Your task to perform on an android device: toggle sleep mode Image 0: 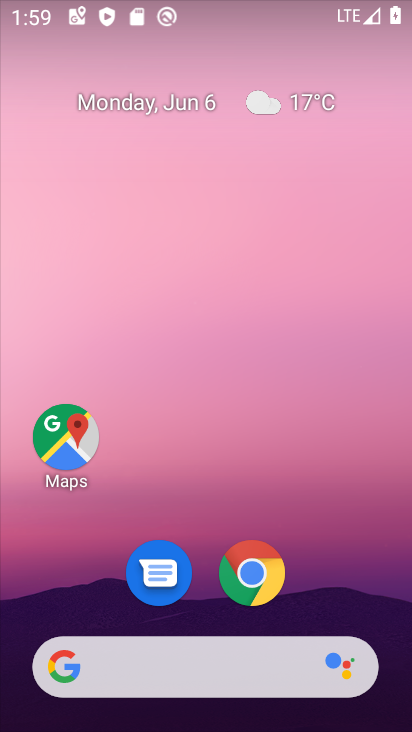
Step 0: drag from (370, 570) to (367, 238)
Your task to perform on an android device: toggle sleep mode Image 1: 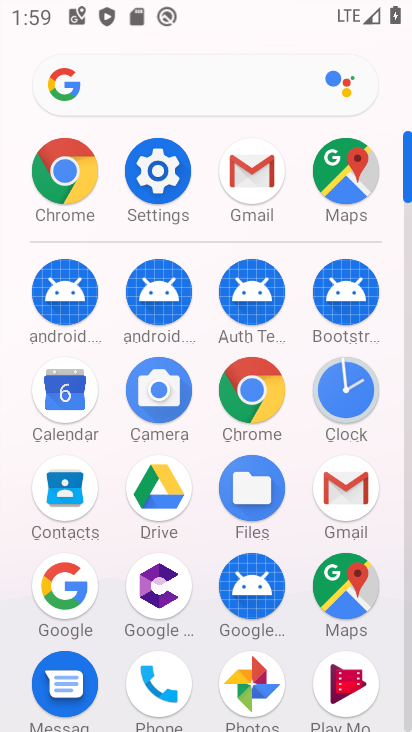
Step 1: click (163, 188)
Your task to perform on an android device: toggle sleep mode Image 2: 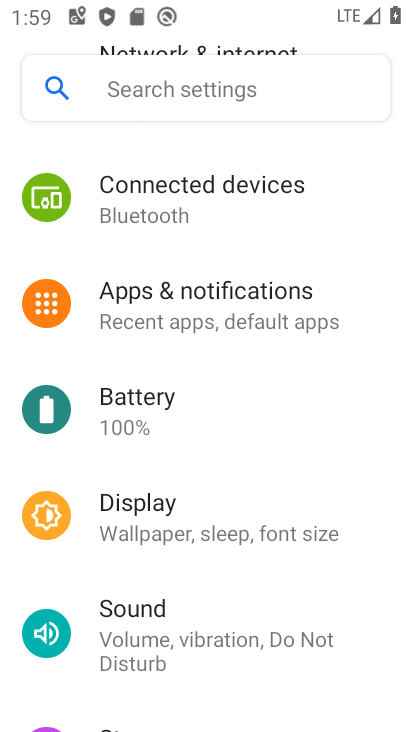
Step 2: drag from (367, 217) to (369, 350)
Your task to perform on an android device: toggle sleep mode Image 3: 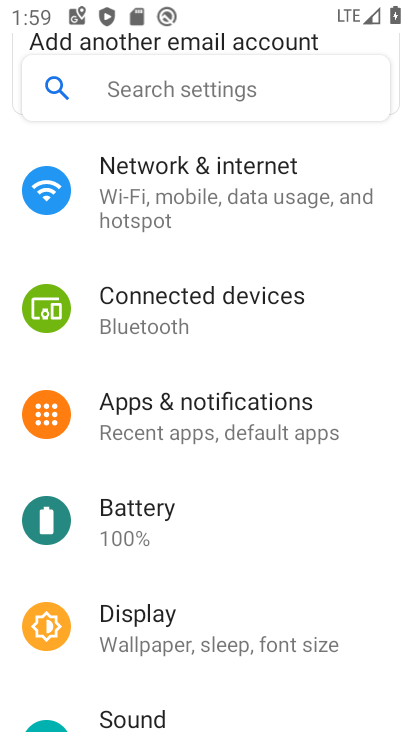
Step 3: drag from (364, 169) to (365, 300)
Your task to perform on an android device: toggle sleep mode Image 4: 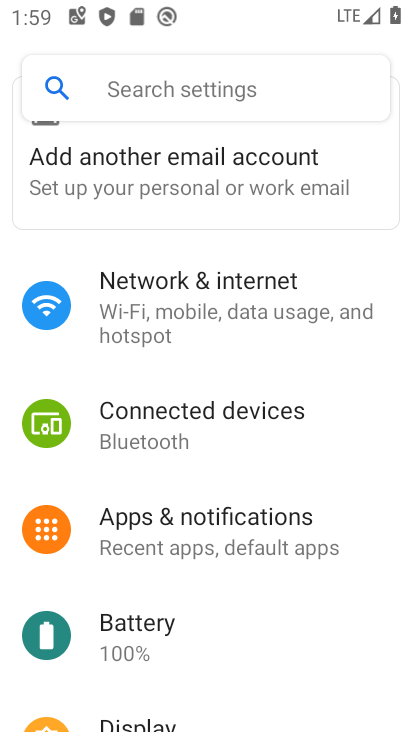
Step 4: drag from (360, 475) to (375, 404)
Your task to perform on an android device: toggle sleep mode Image 5: 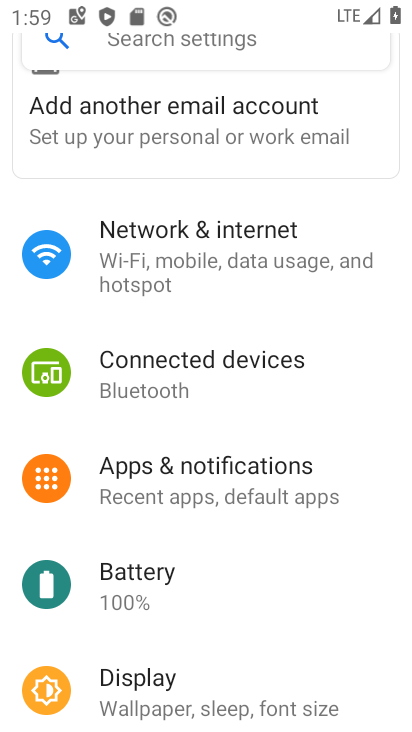
Step 5: drag from (360, 519) to (368, 433)
Your task to perform on an android device: toggle sleep mode Image 6: 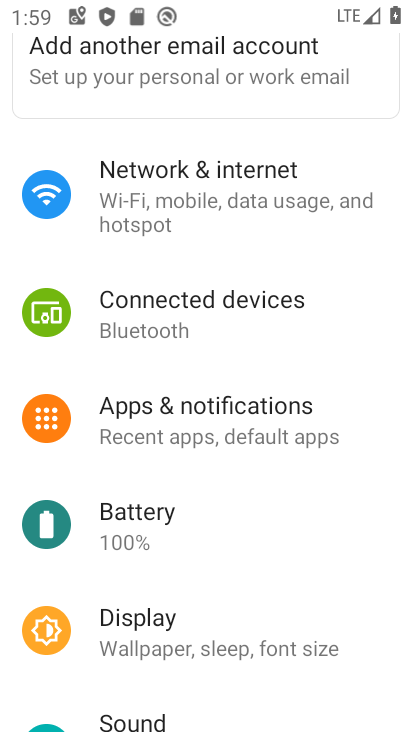
Step 6: drag from (353, 547) to (360, 445)
Your task to perform on an android device: toggle sleep mode Image 7: 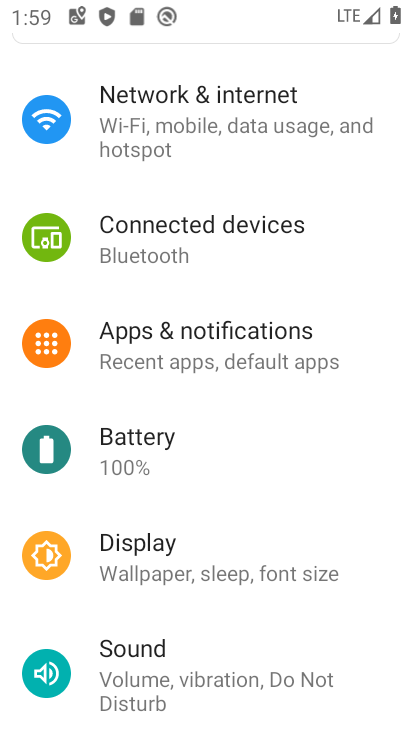
Step 7: drag from (366, 562) to (372, 443)
Your task to perform on an android device: toggle sleep mode Image 8: 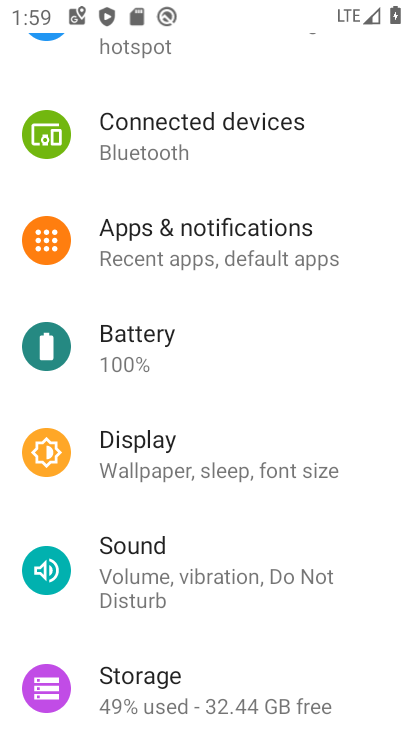
Step 8: click (274, 468)
Your task to perform on an android device: toggle sleep mode Image 9: 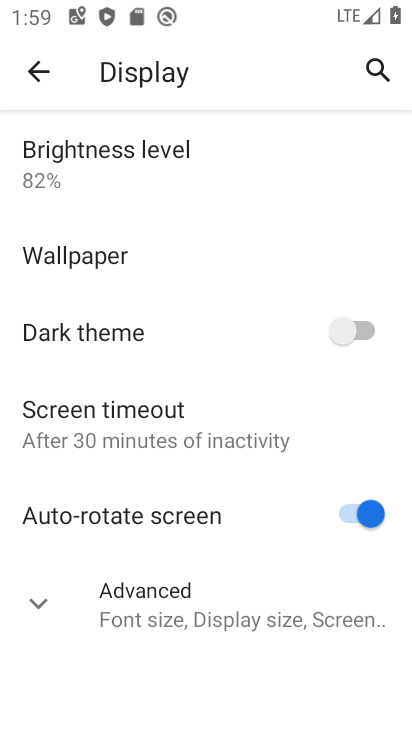
Step 9: click (248, 620)
Your task to perform on an android device: toggle sleep mode Image 10: 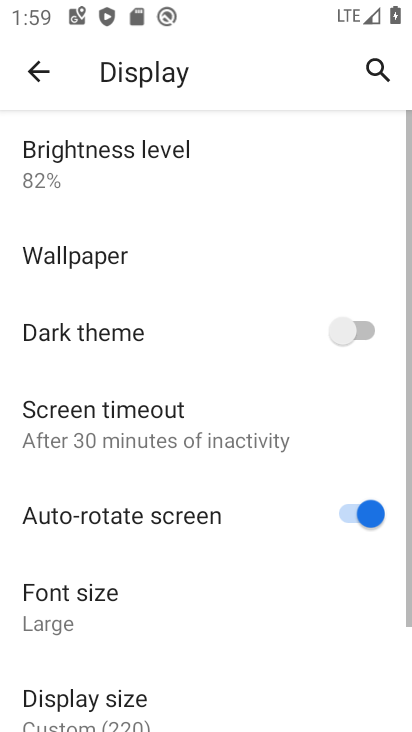
Step 10: task complete